Your task to perform on an android device: When is my next meeting? Image 0: 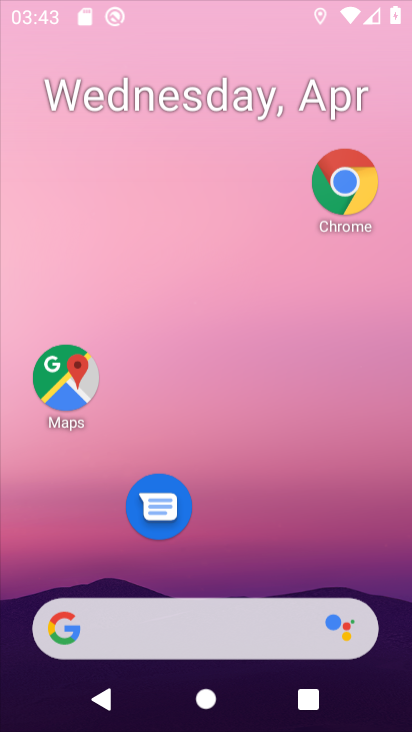
Step 0: drag from (206, 473) to (244, 19)
Your task to perform on an android device: When is my next meeting? Image 1: 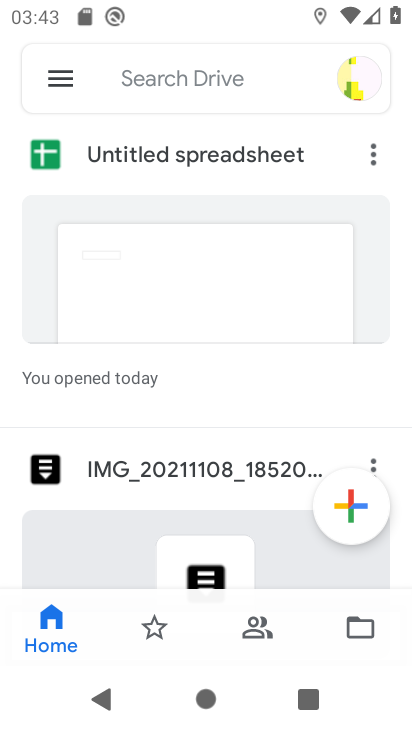
Step 1: press home button
Your task to perform on an android device: When is my next meeting? Image 2: 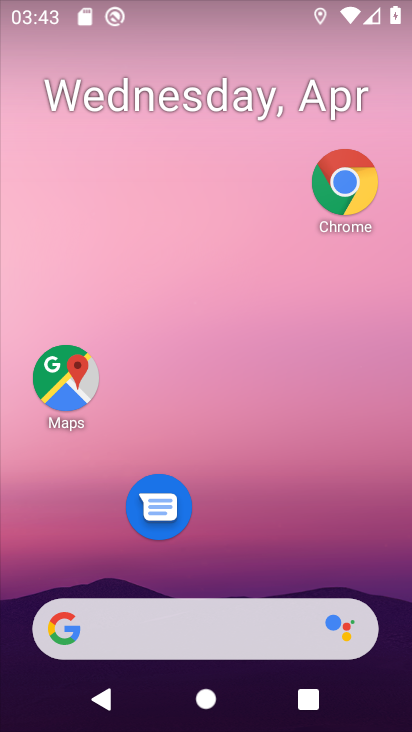
Step 2: drag from (185, 560) to (288, 11)
Your task to perform on an android device: When is my next meeting? Image 3: 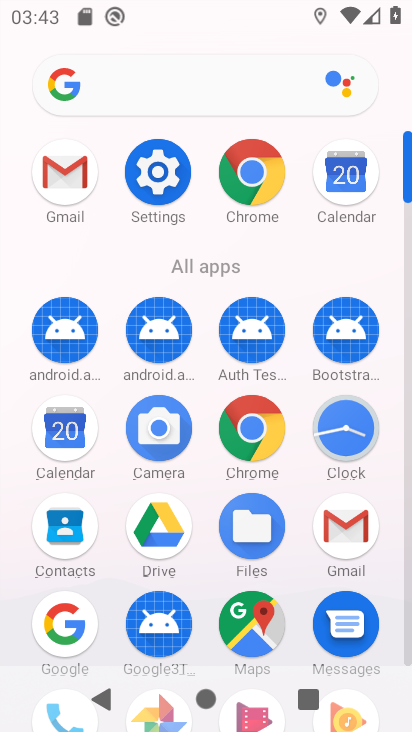
Step 3: click (70, 444)
Your task to perform on an android device: When is my next meeting? Image 4: 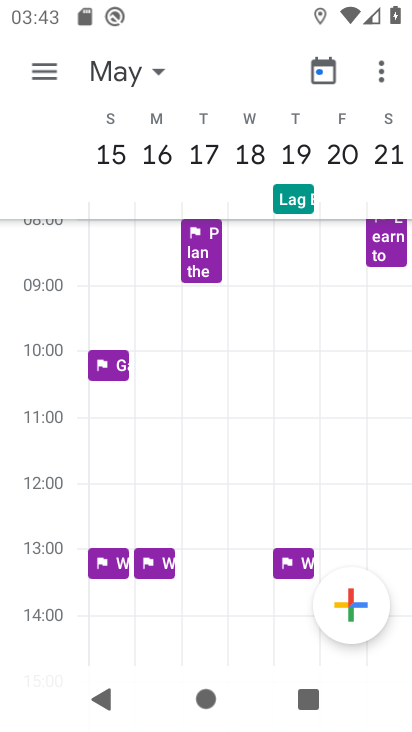
Step 4: click (45, 76)
Your task to perform on an android device: When is my next meeting? Image 5: 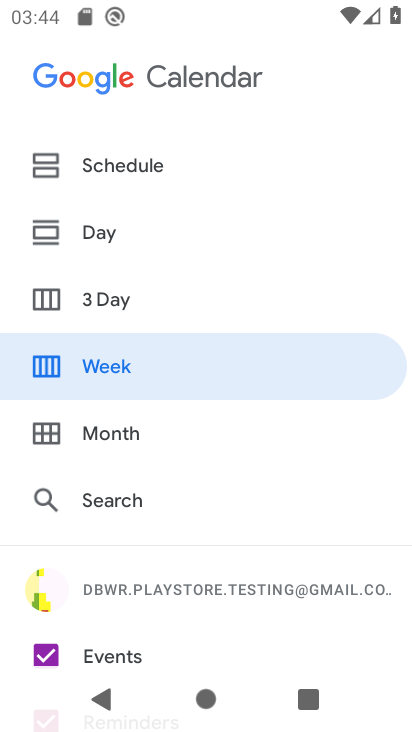
Step 5: click (146, 489)
Your task to perform on an android device: When is my next meeting? Image 6: 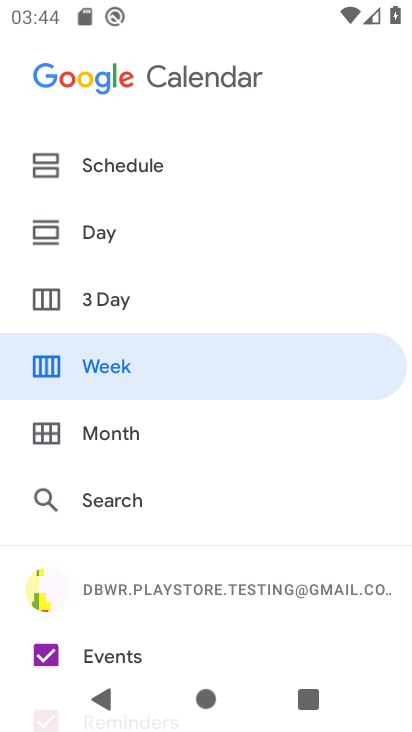
Step 6: click (146, 489)
Your task to perform on an android device: When is my next meeting? Image 7: 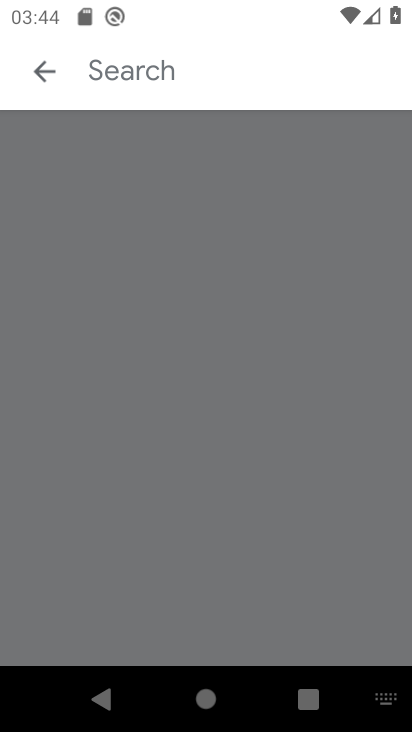
Step 7: type "next meet"
Your task to perform on an android device: When is my next meeting? Image 8: 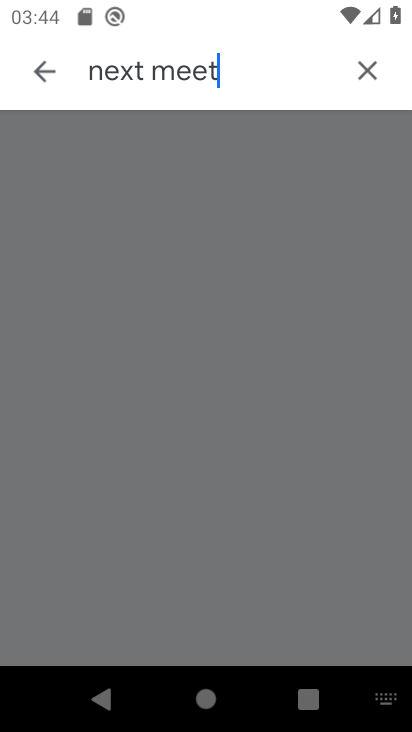
Step 8: task complete